Your task to perform on an android device: Open the stopwatch Image 0: 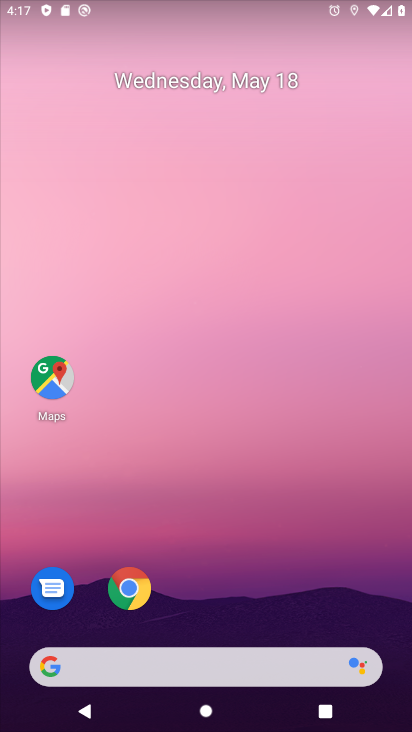
Step 0: drag from (246, 579) to (260, 113)
Your task to perform on an android device: Open the stopwatch Image 1: 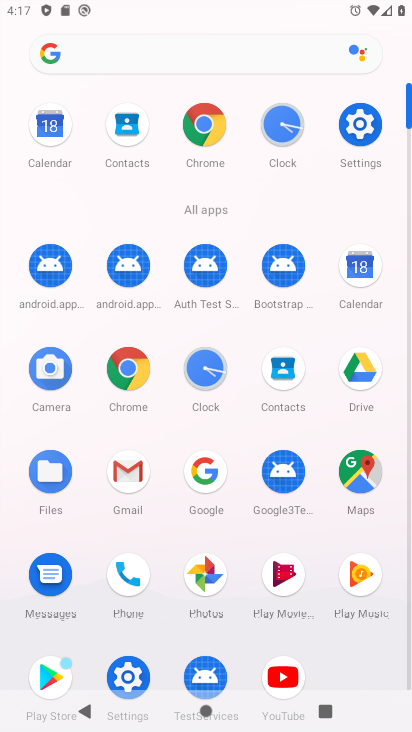
Step 1: click (270, 125)
Your task to perform on an android device: Open the stopwatch Image 2: 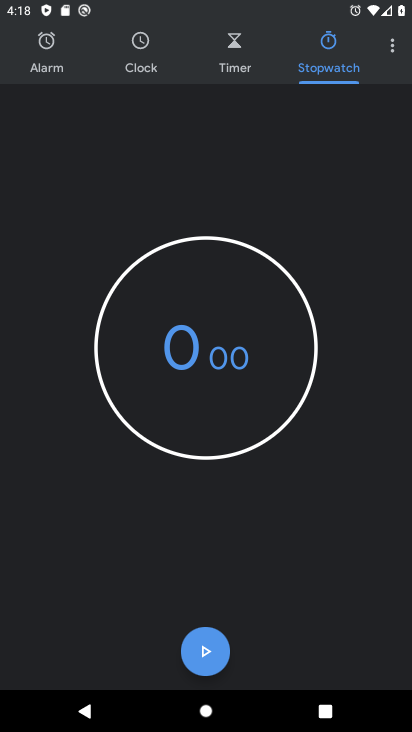
Step 2: task complete